Your task to perform on an android device: Add "macbook air" to the cart on amazon Image 0: 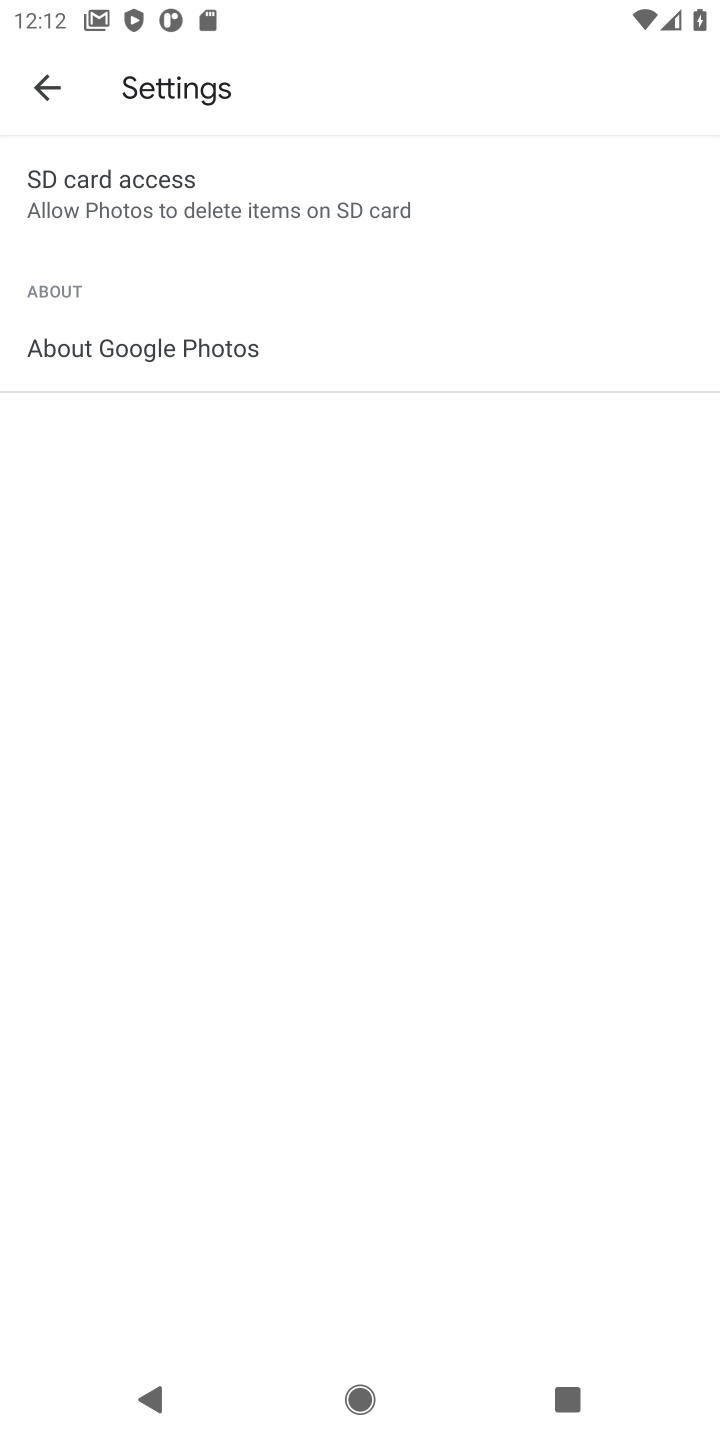
Step 0: press home button
Your task to perform on an android device: Add "macbook air" to the cart on amazon Image 1: 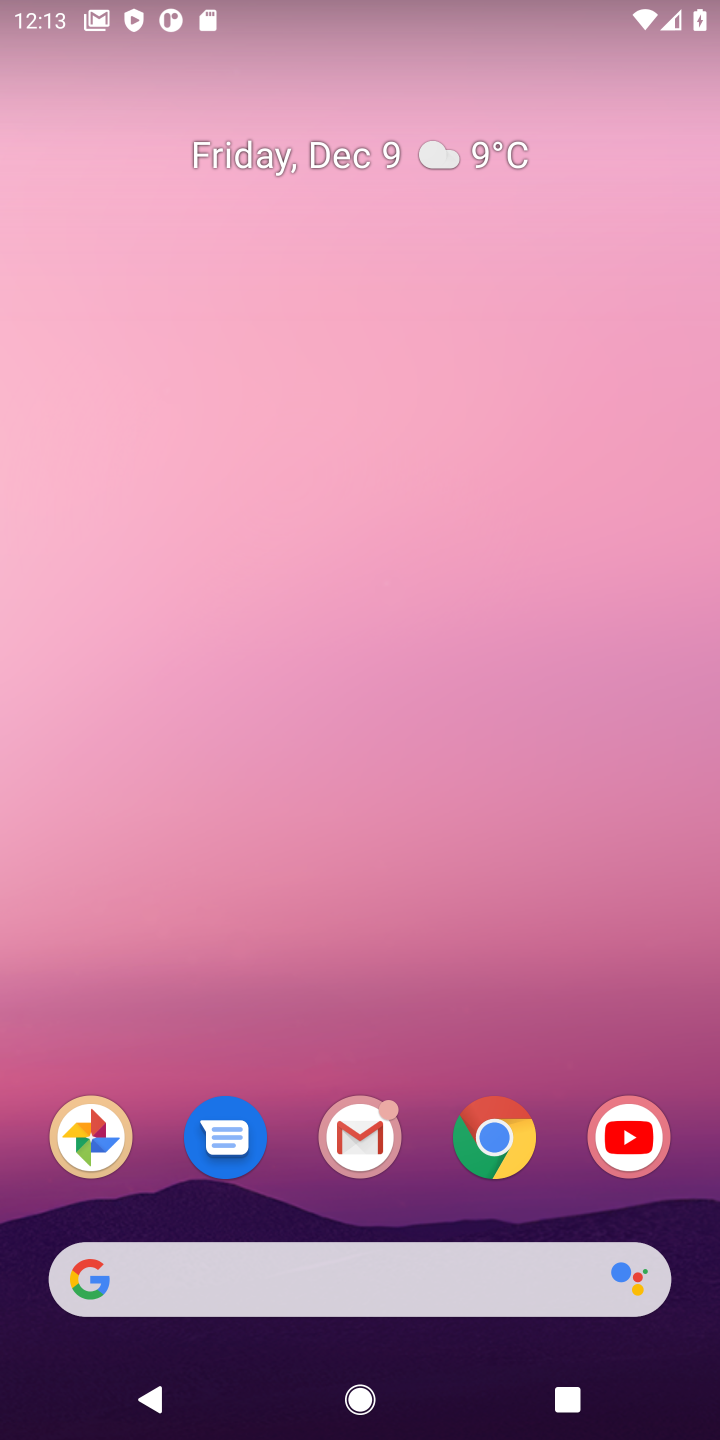
Step 1: click (287, 1290)
Your task to perform on an android device: Add "macbook air" to the cart on amazon Image 2: 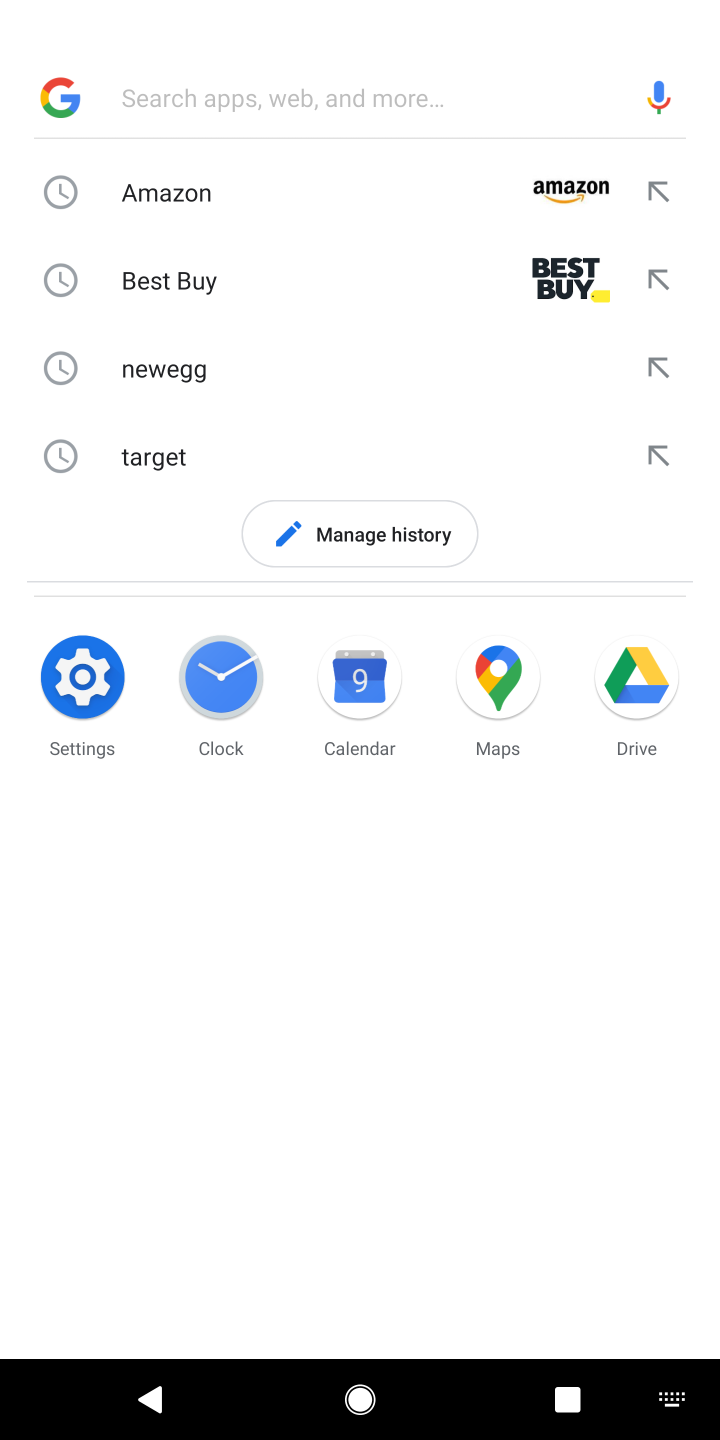
Step 2: click (191, 182)
Your task to perform on an android device: Add "macbook air" to the cart on amazon Image 3: 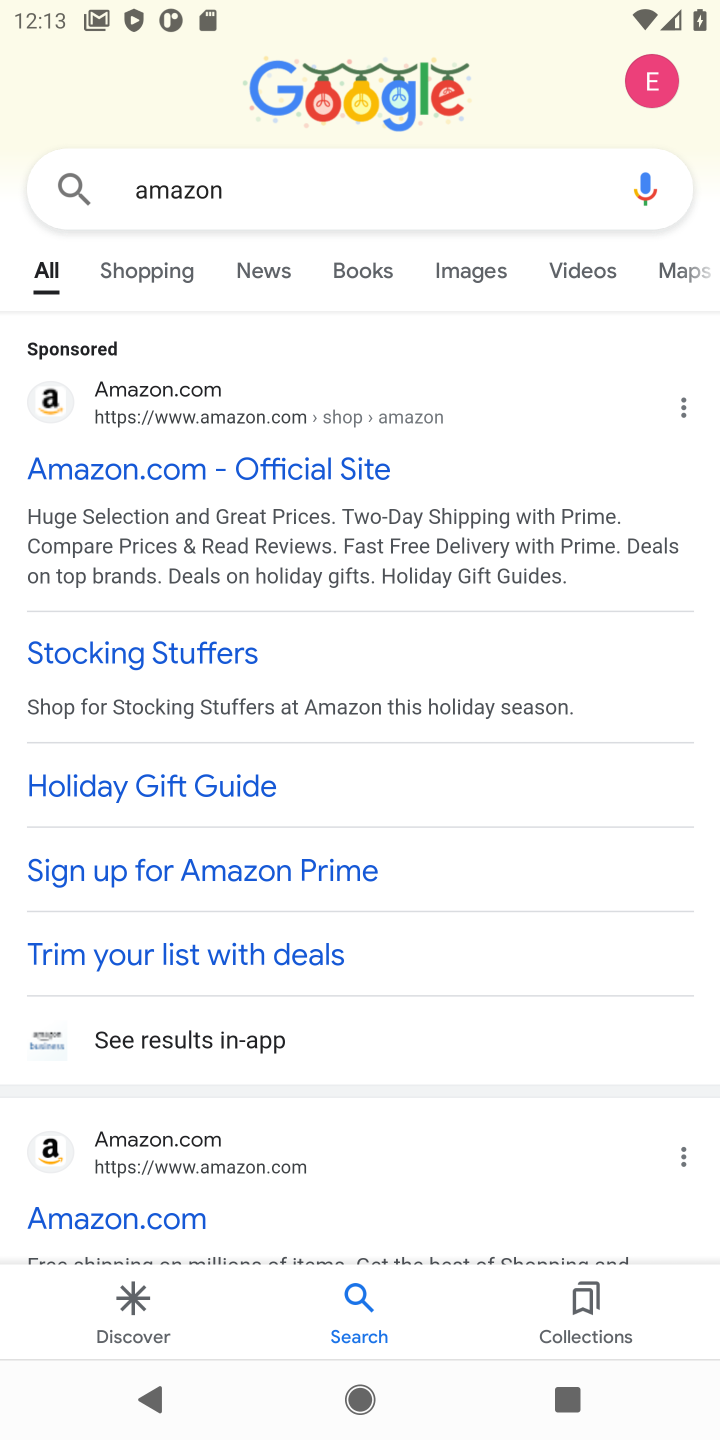
Step 3: click (166, 470)
Your task to perform on an android device: Add "macbook air" to the cart on amazon Image 4: 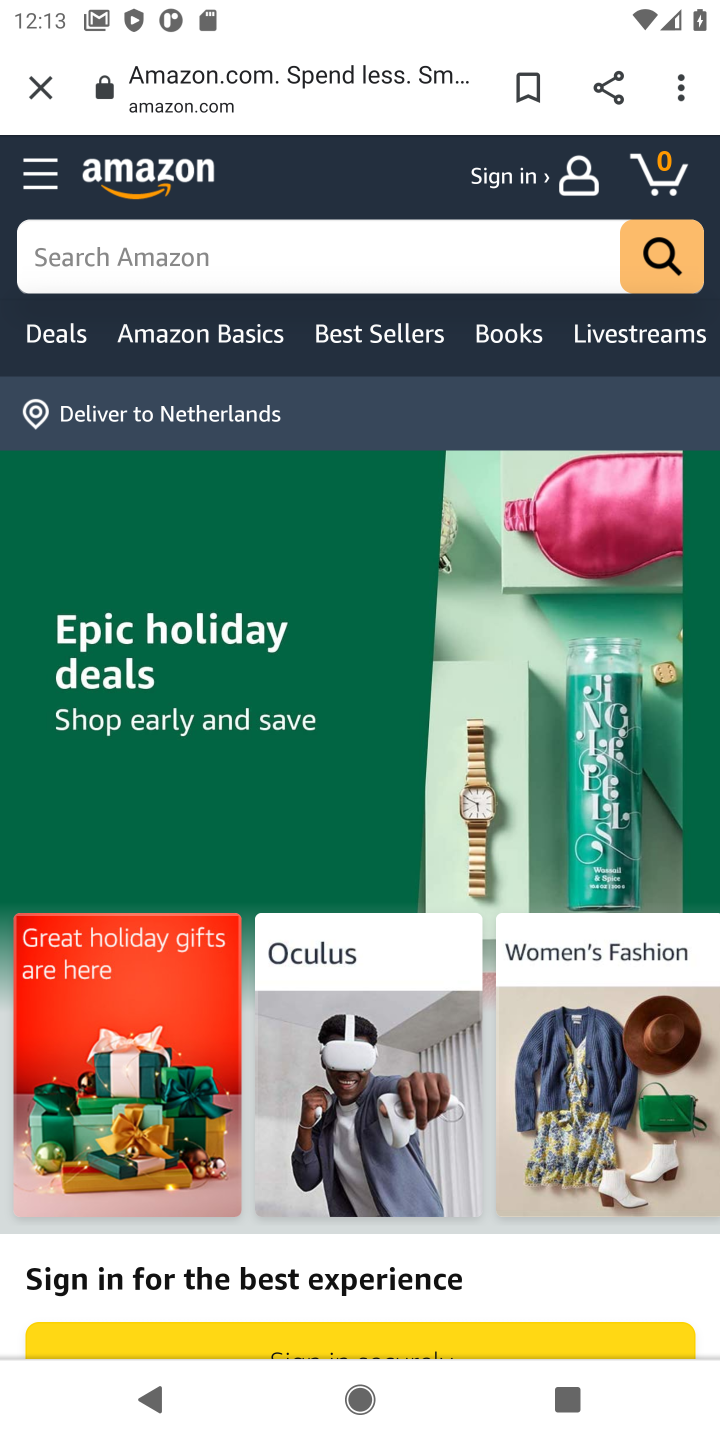
Step 4: click (173, 270)
Your task to perform on an android device: Add "macbook air" to the cart on amazon Image 5: 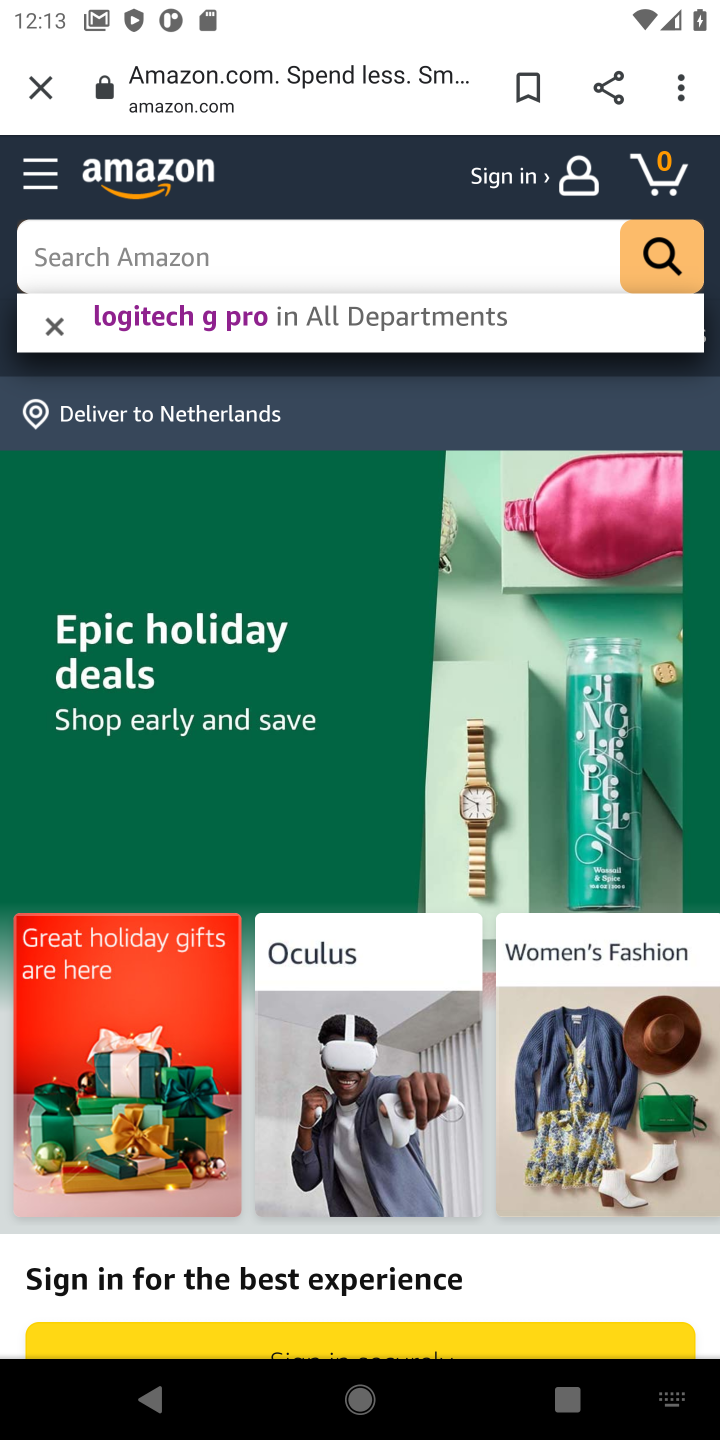
Step 5: type "macbook air"
Your task to perform on an android device: Add "macbook air" to the cart on amazon Image 6: 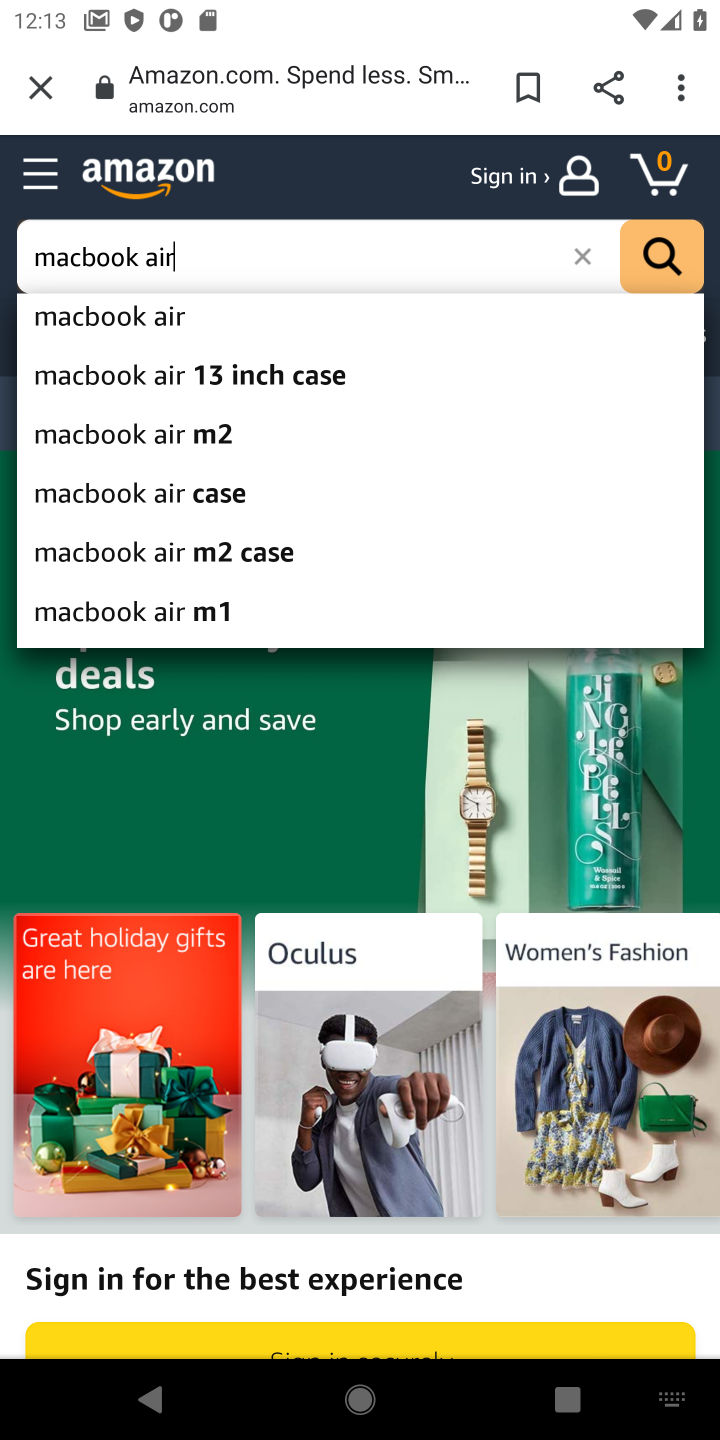
Step 6: click (79, 312)
Your task to perform on an android device: Add "macbook air" to the cart on amazon Image 7: 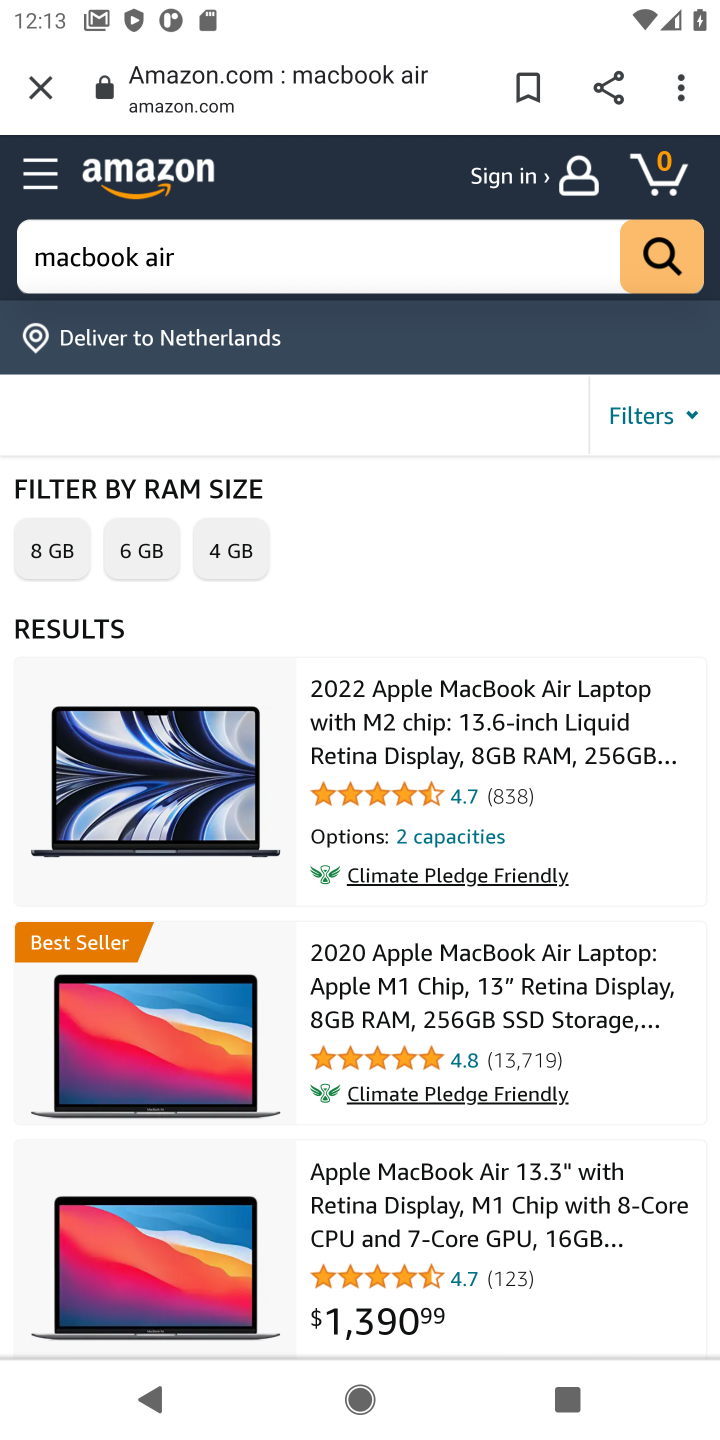
Step 7: click (448, 723)
Your task to perform on an android device: Add "macbook air" to the cart on amazon Image 8: 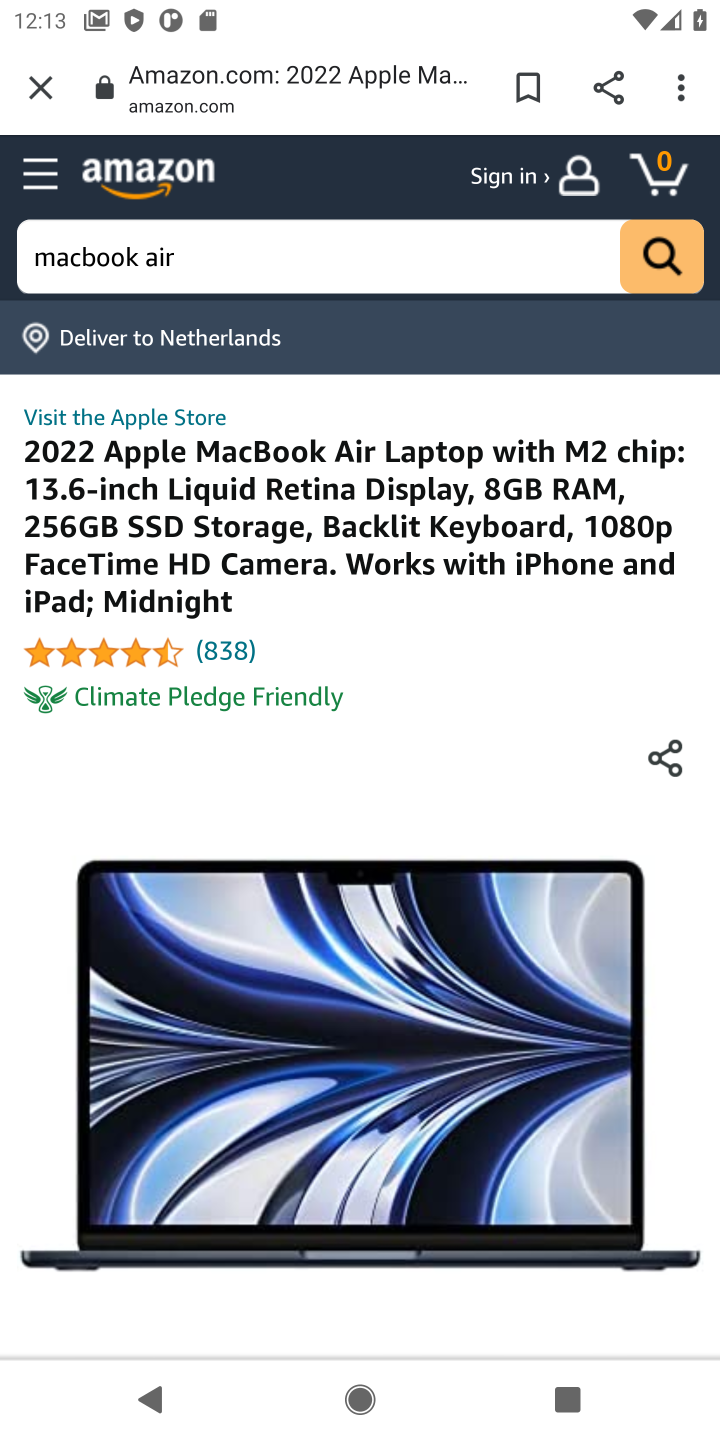
Step 8: task complete